Your task to perform on an android device: delete browsing data in the chrome app Image 0: 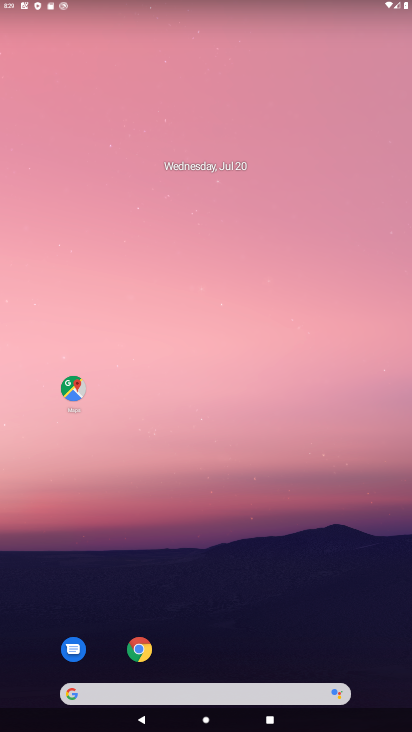
Step 0: task complete